Your task to perform on an android device: allow cookies in the chrome app Image 0: 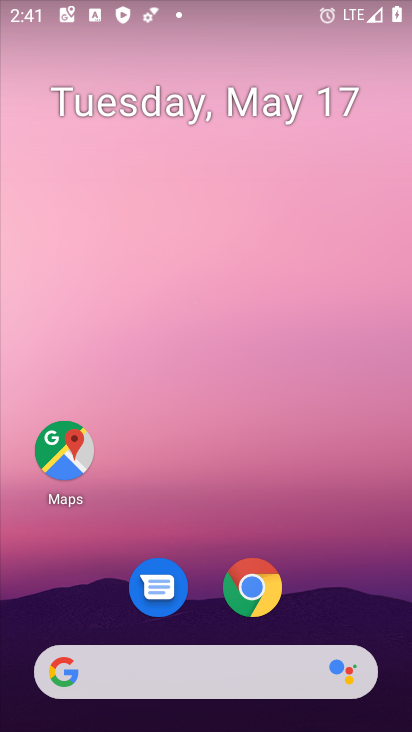
Step 0: drag from (205, 607) to (256, 133)
Your task to perform on an android device: allow cookies in the chrome app Image 1: 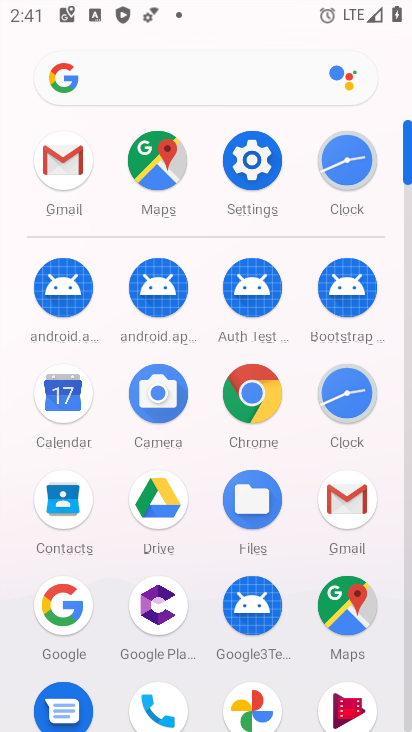
Step 1: click (238, 387)
Your task to perform on an android device: allow cookies in the chrome app Image 2: 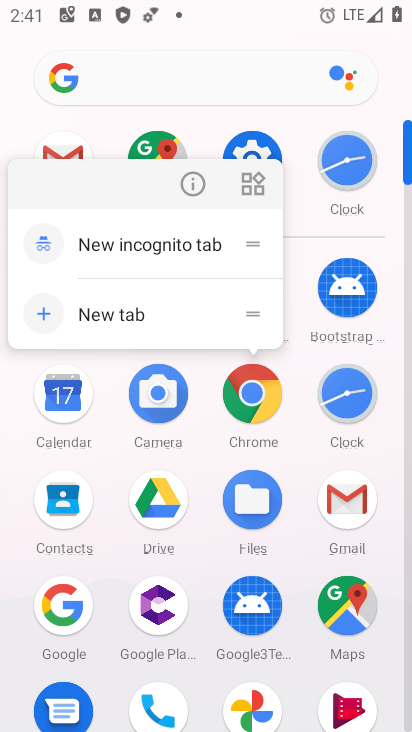
Step 2: click (190, 185)
Your task to perform on an android device: allow cookies in the chrome app Image 3: 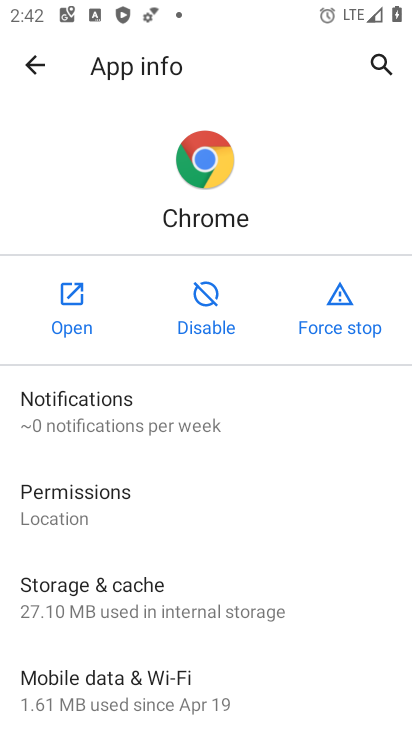
Step 3: click (81, 314)
Your task to perform on an android device: allow cookies in the chrome app Image 4: 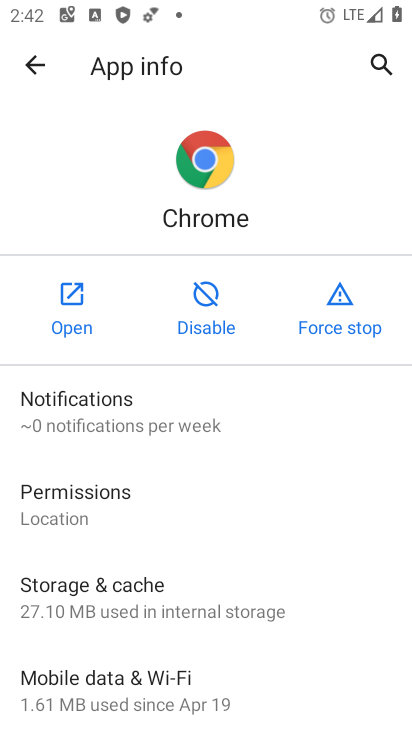
Step 4: click (81, 314)
Your task to perform on an android device: allow cookies in the chrome app Image 5: 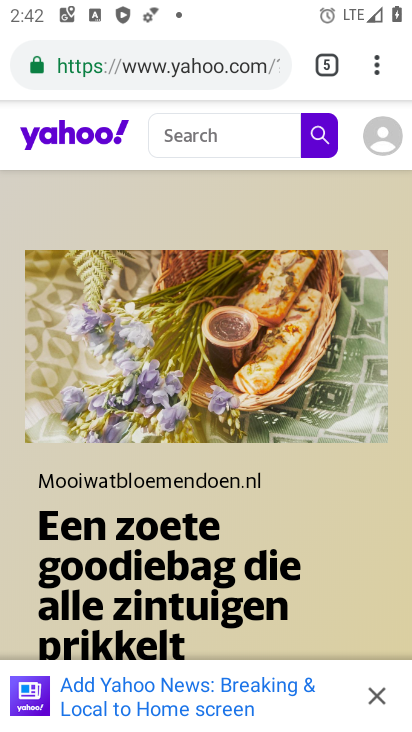
Step 5: click (386, 61)
Your task to perform on an android device: allow cookies in the chrome app Image 6: 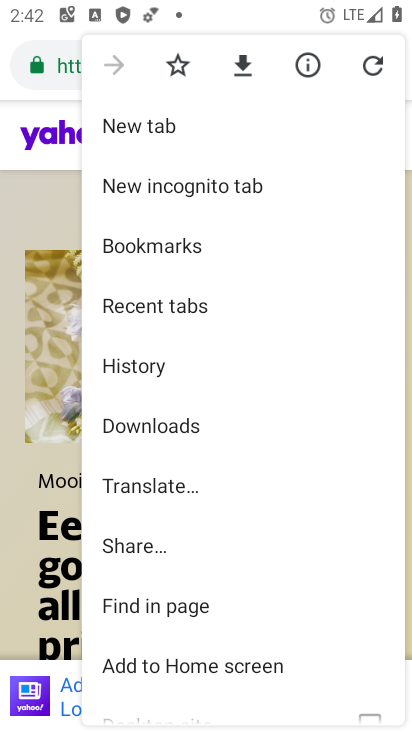
Step 6: drag from (206, 562) to (299, 160)
Your task to perform on an android device: allow cookies in the chrome app Image 7: 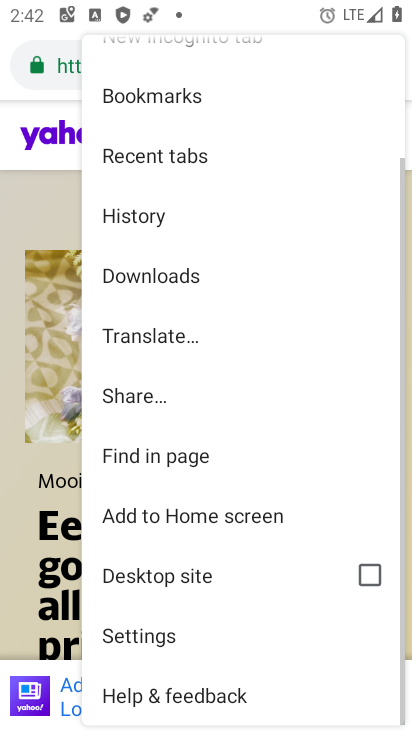
Step 7: click (195, 635)
Your task to perform on an android device: allow cookies in the chrome app Image 8: 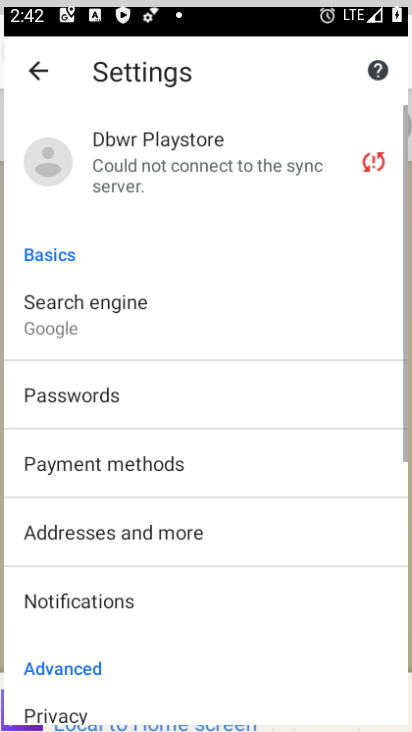
Step 8: drag from (202, 605) to (242, 91)
Your task to perform on an android device: allow cookies in the chrome app Image 9: 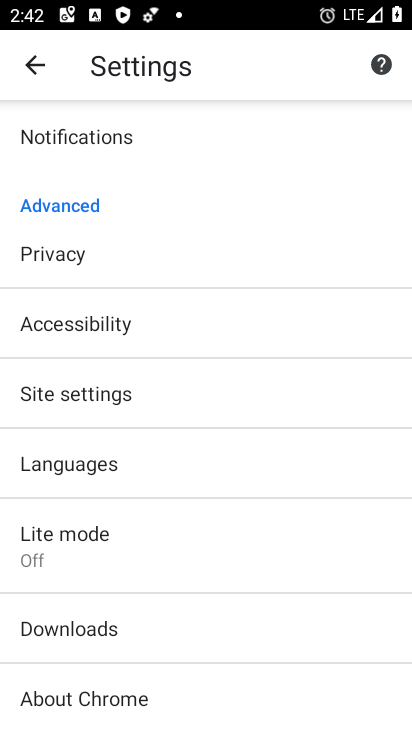
Step 9: drag from (180, 626) to (204, 292)
Your task to perform on an android device: allow cookies in the chrome app Image 10: 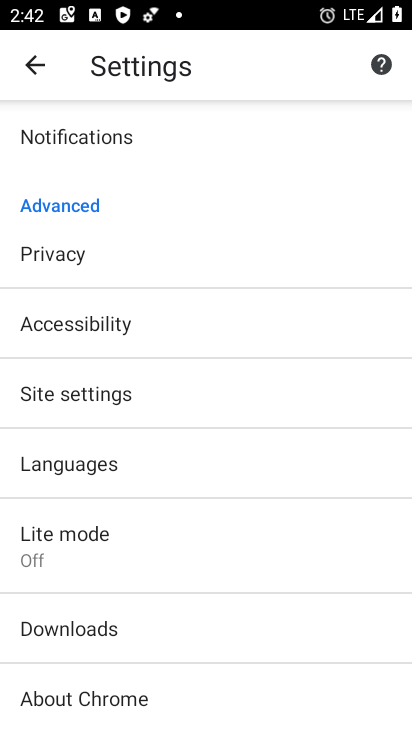
Step 10: click (118, 402)
Your task to perform on an android device: allow cookies in the chrome app Image 11: 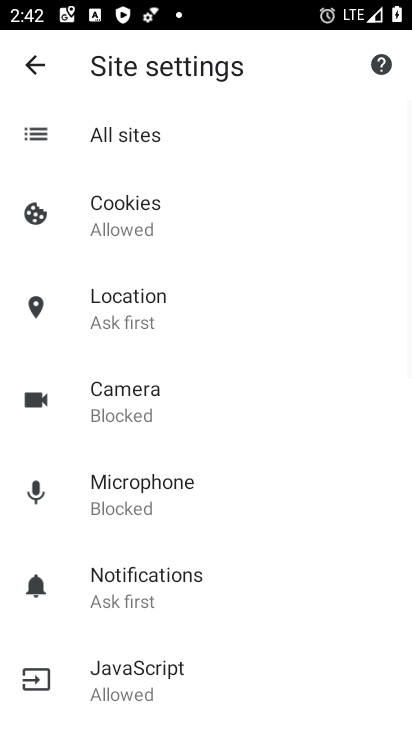
Step 11: click (227, 211)
Your task to perform on an android device: allow cookies in the chrome app Image 12: 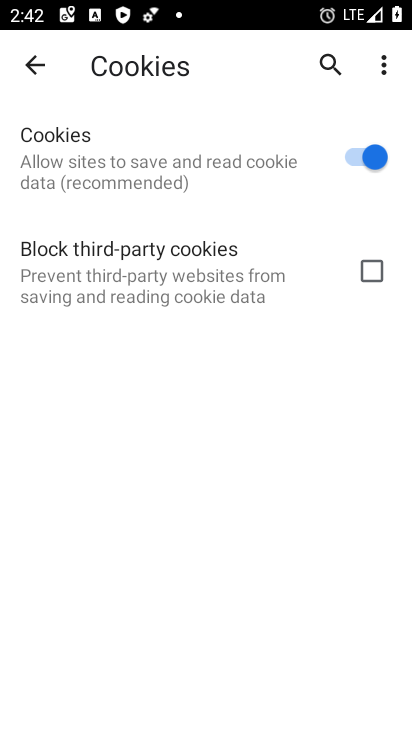
Step 12: task complete